Your task to perform on an android device: Go to privacy settings Image 0: 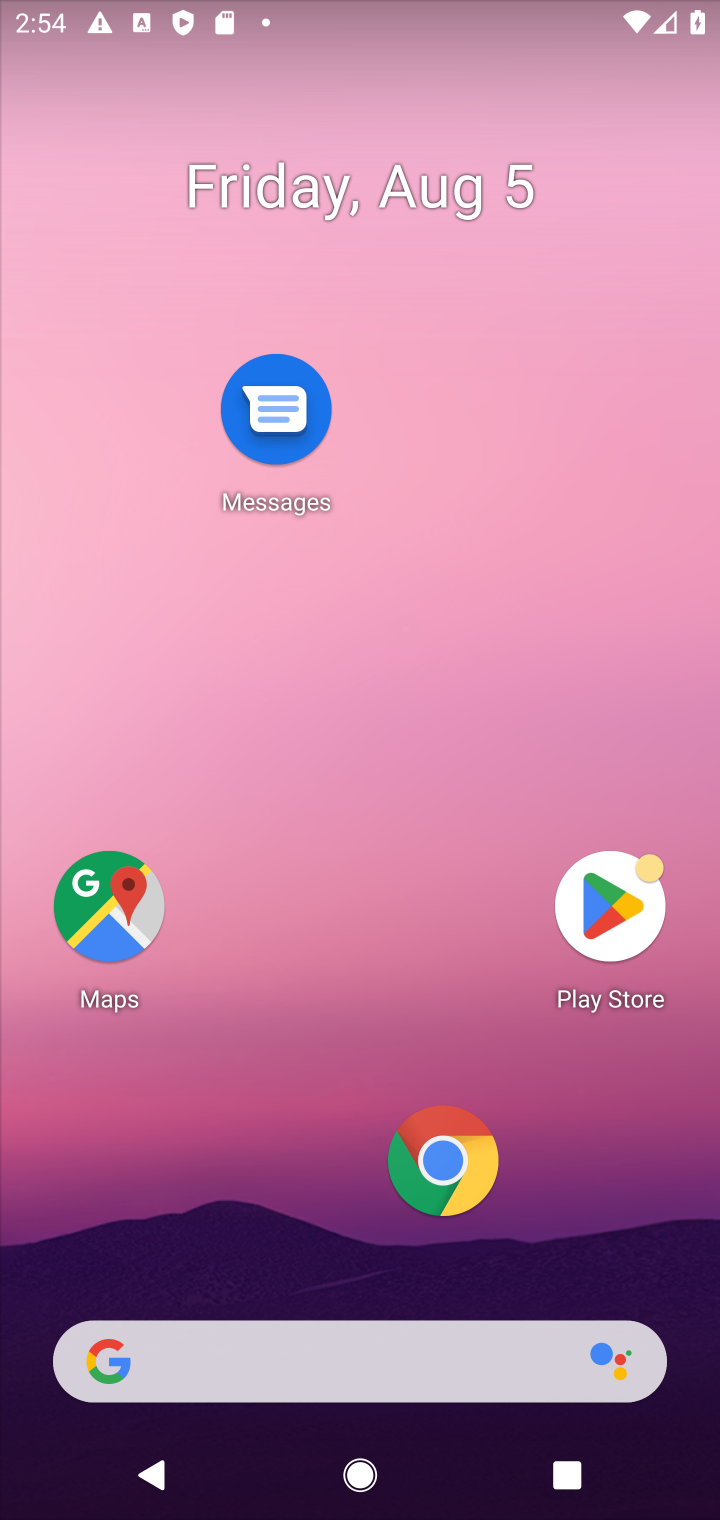
Step 0: drag from (324, 866) to (331, 237)
Your task to perform on an android device: Go to privacy settings Image 1: 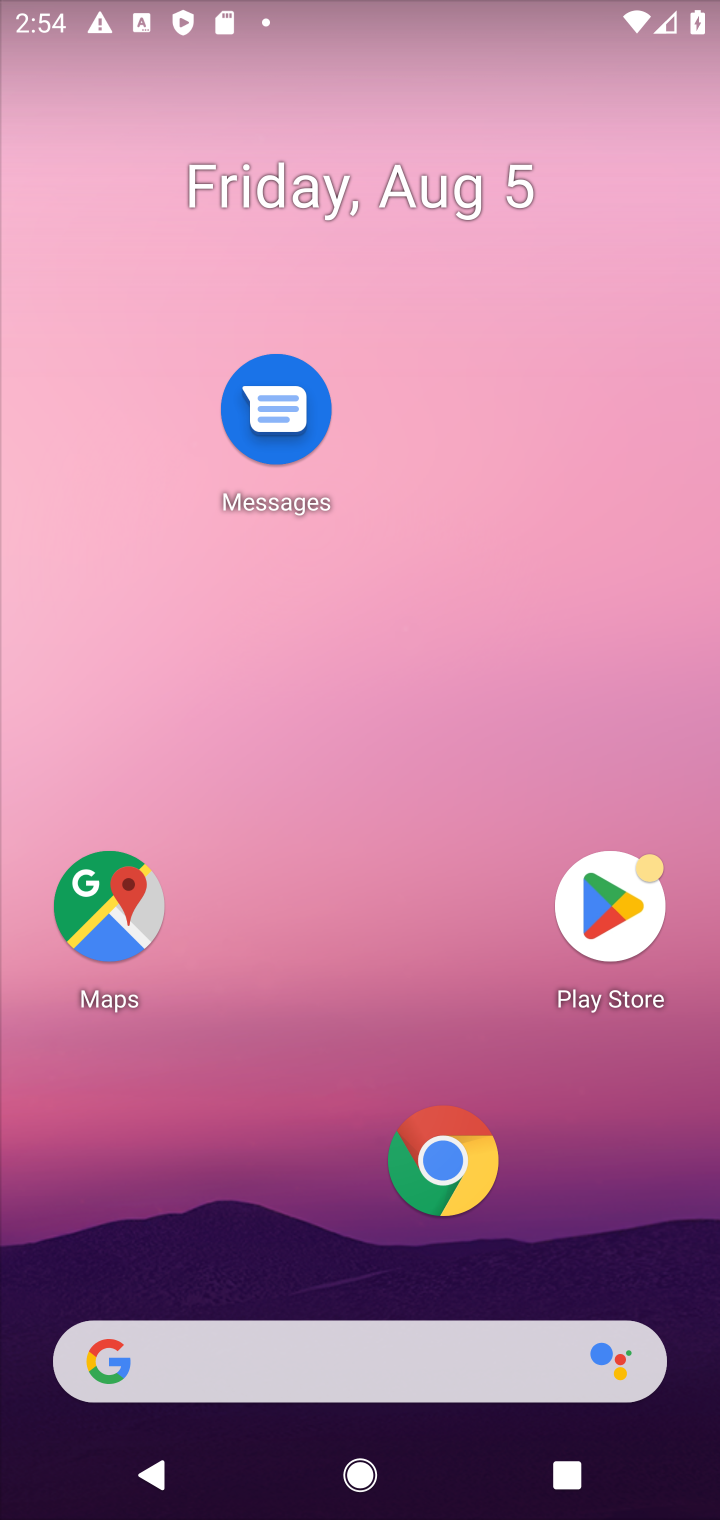
Step 1: drag from (300, 999) to (300, 189)
Your task to perform on an android device: Go to privacy settings Image 2: 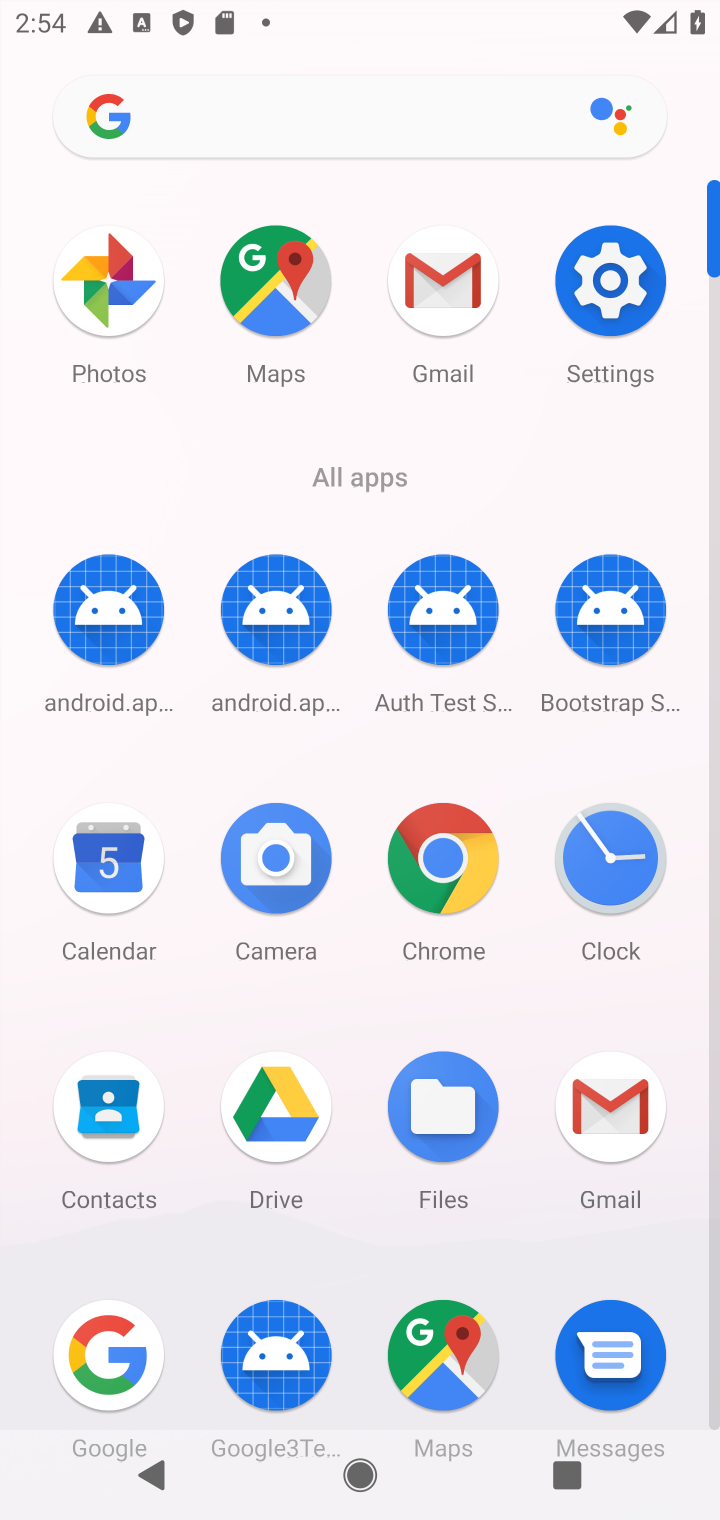
Step 2: click (576, 274)
Your task to perform on an android device: Go to privacy settings Image 3: 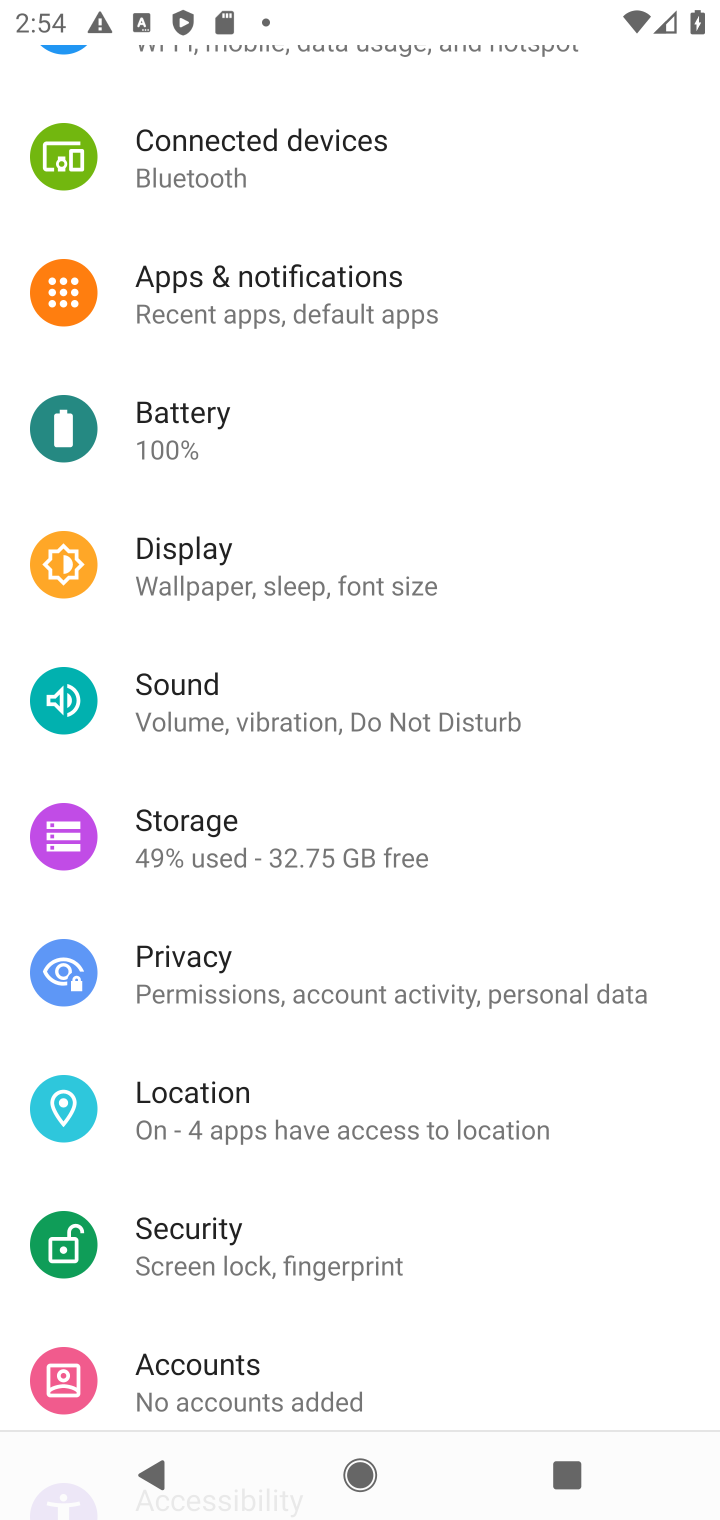
Step 3: click (290, 971)
Your task to perform on an android device: Go to privacy settings Image 4: 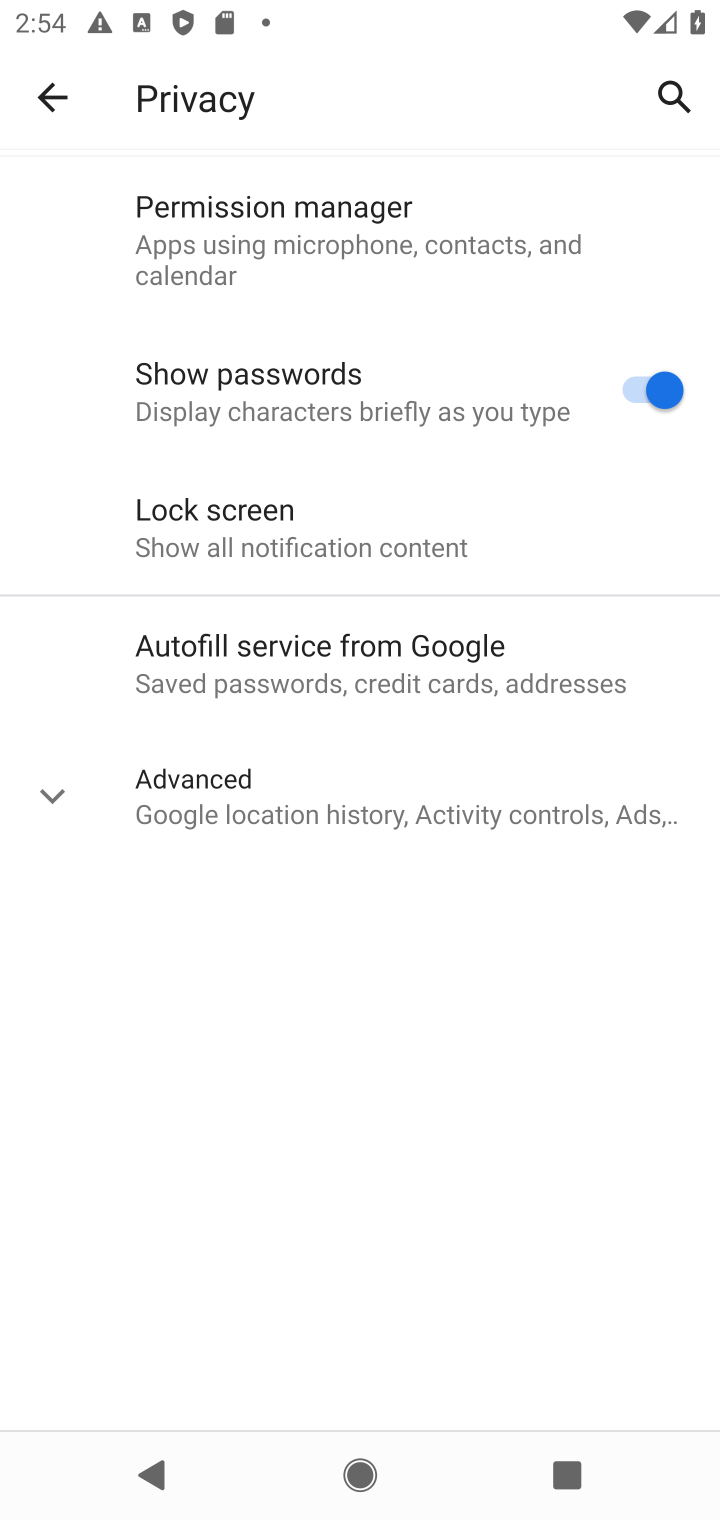
Step 4: task complete